Your task to perform on an android device: Open privacy settings Image 0: 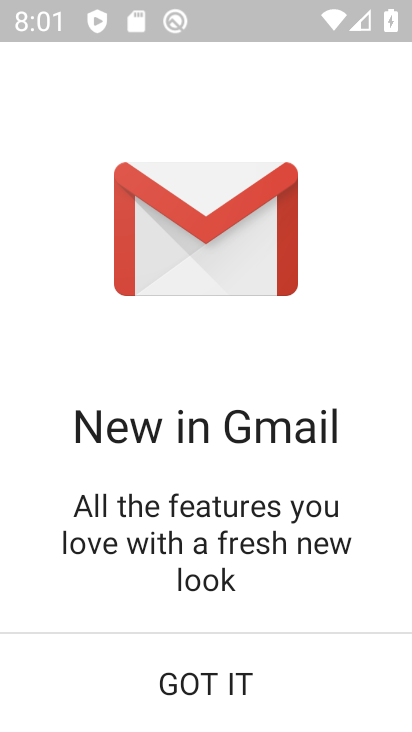
Step 0: press home button
Your task to perform on an android device: Open privacy settings Image 1: 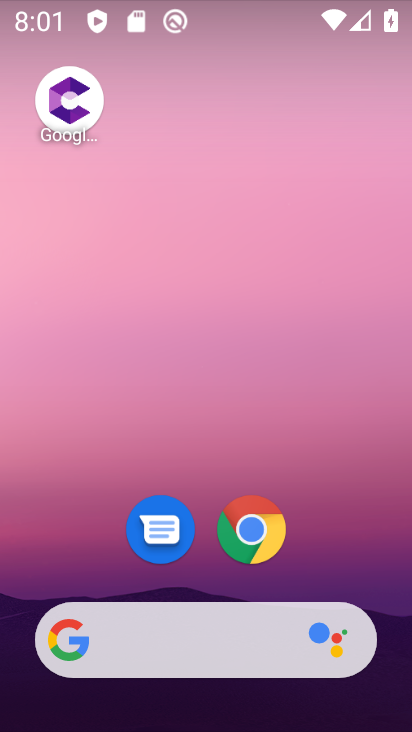
Step 1: drag from (187, 622) to (357, 20)
Your task to perform on an android device: Open privacy settings Image 2: 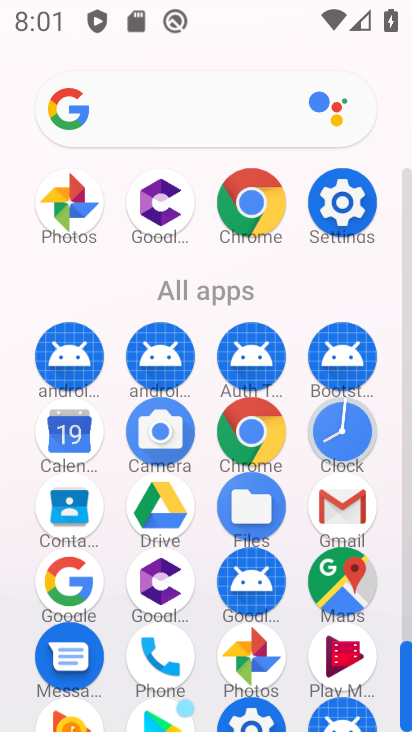
Step 2: click (333, 207)
Your task to perform on an android device: Open privacy settings Image 3: 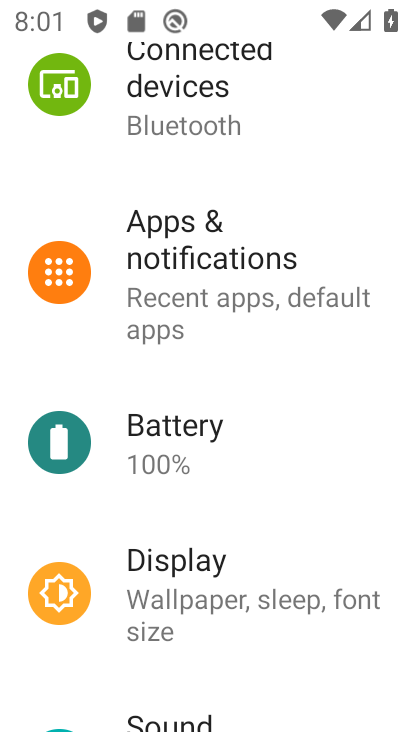
Step 3: drag from (250, 480) to (404, 89)
Your task to perform on an android device: Open privacy settings Image 4: 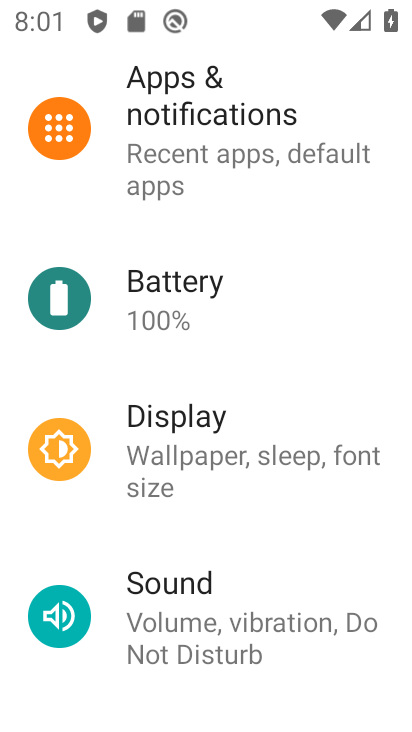
Step 4: drag from (276, 530) to (400, 83)
Your task to perform on an android device: Open privacy settings Image 5: 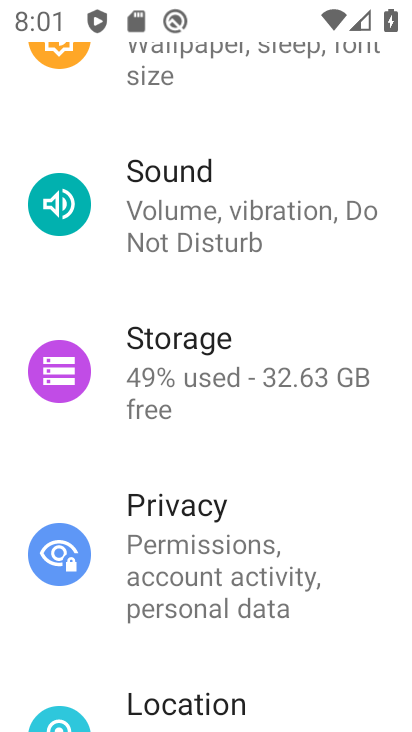
Step 5: click (181, 516)
Your task to perform on an android device: Open privacy settings Image 6: 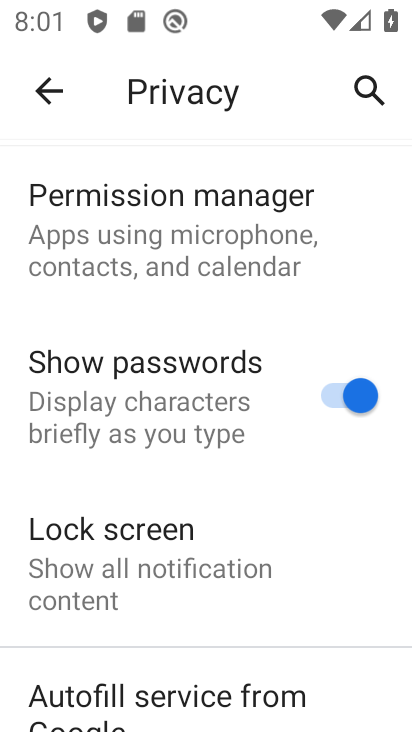
Step 6: task complete